Your task to perform on an android device: Open display settings Image 0: 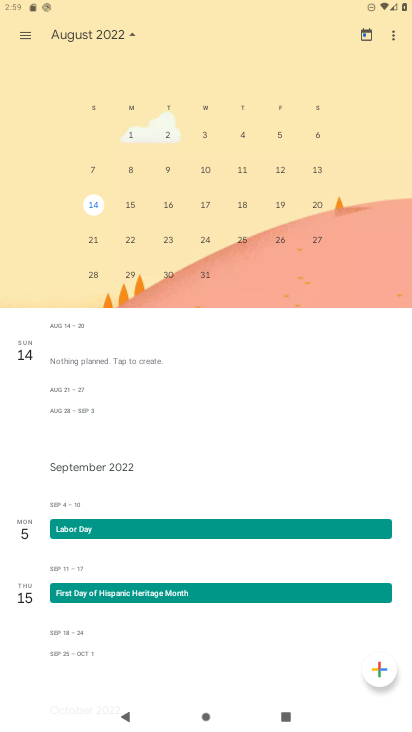
Step 0: press home button
Your task to perform on an android device: Open display settings Image 1: 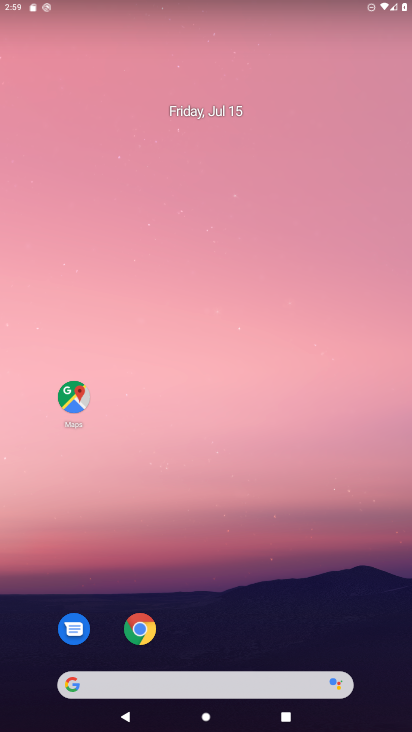
Step 1: drag from (259, 589) to (314, 1)
Your task to perform on an android device: Open display settings Image 2: 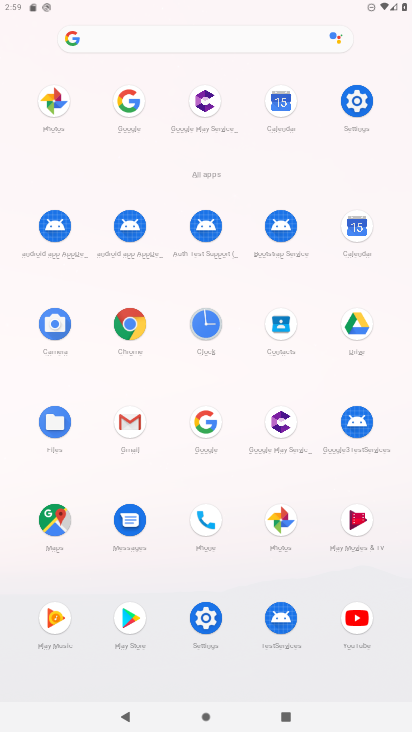
Step 2: click (355, 105)
Your task to perform on an android device: Open display settings Image 3: 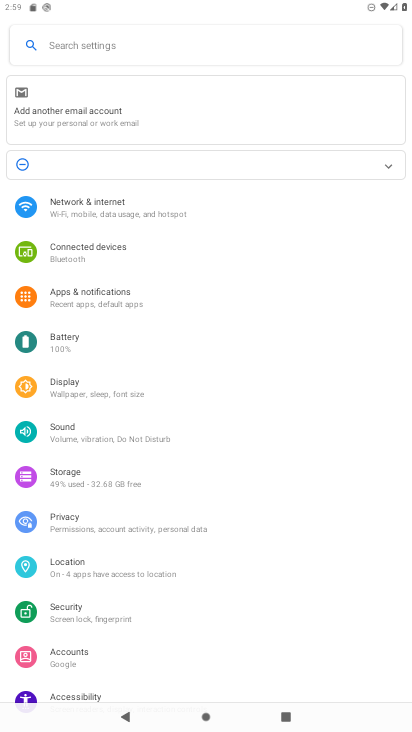
Step 3: click (77, 393)
Your task to perform on an android device: Open display settings Image 4: 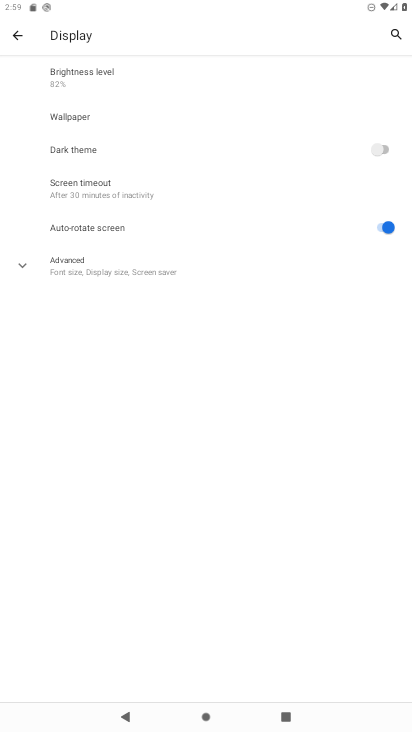
Step 4: task complete